Your task to perform on an android device: Search for pizza restaurants on Maps Image 0: 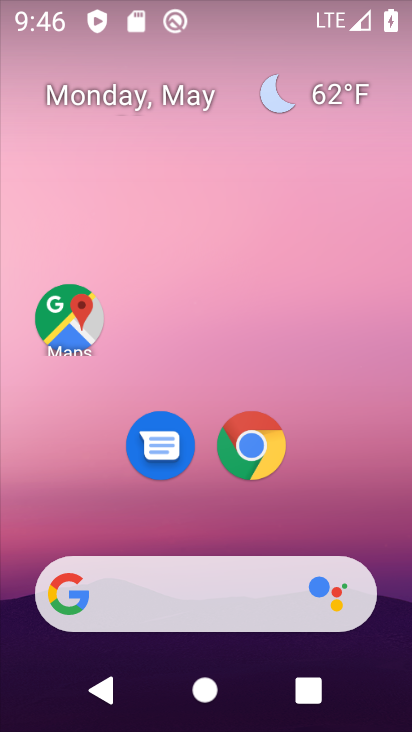
Step 0: drag from (397, 622) to (213, 108)
Your task to perform on an android device: Search for pizza restaurants on Maps Image 1: 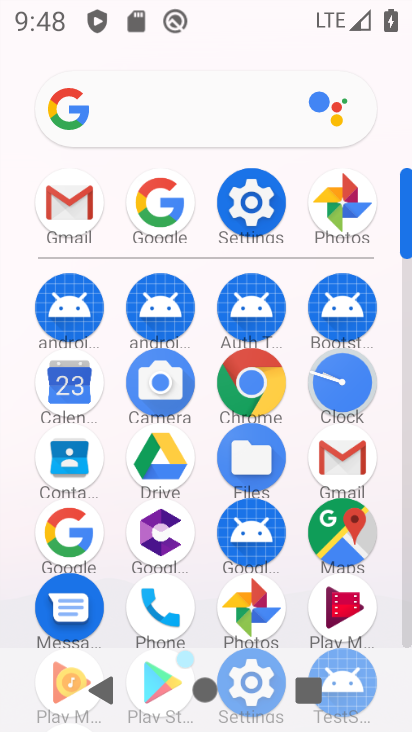
Step 1: click (363, 547)
Your task to perform on an android device: Search for pizza restaurants on Maps Image 2: 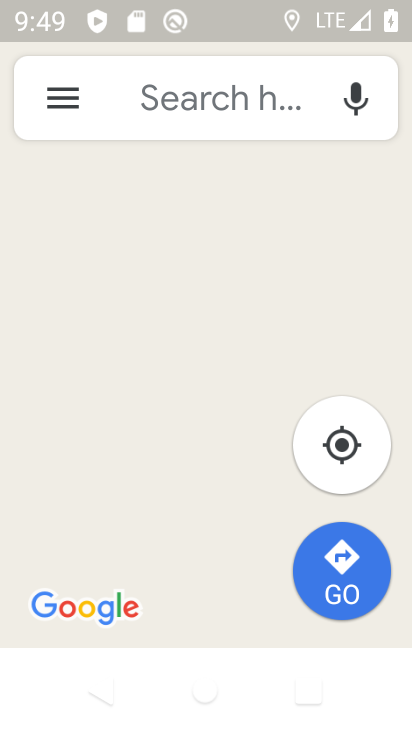
Step 2: click (197, 103)
Your task to perform on an android device: Search for pizza restaurants on Maps Image 3: 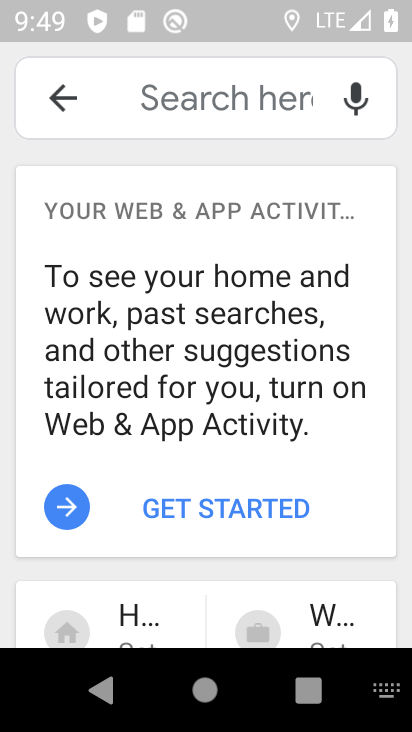
Step 3: click (267, 509)
Your task to perform on an android device: Search for pizza restaurants on Maps Image 4: 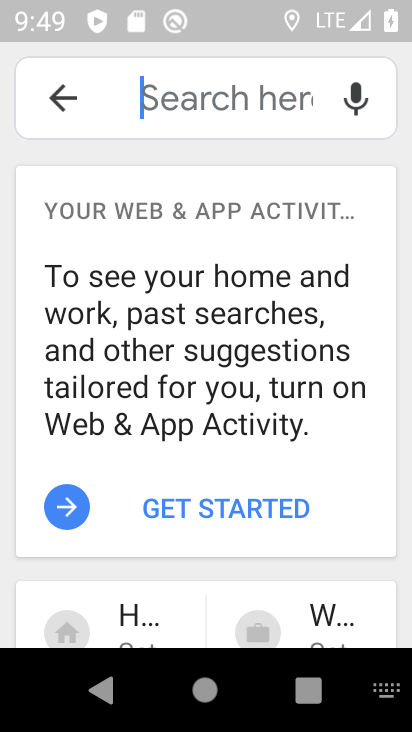
Step 4: click (242, 506)
Your task to perform on an android device: Search for pizza restaurants on Maps Image 5: 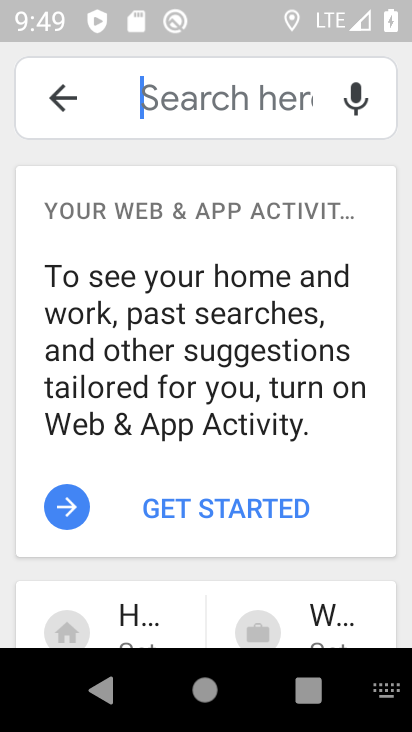
Step 5: click (148, 513)
Your task to perform on an android device: Search for pizza restaurants on Maps Image 6: 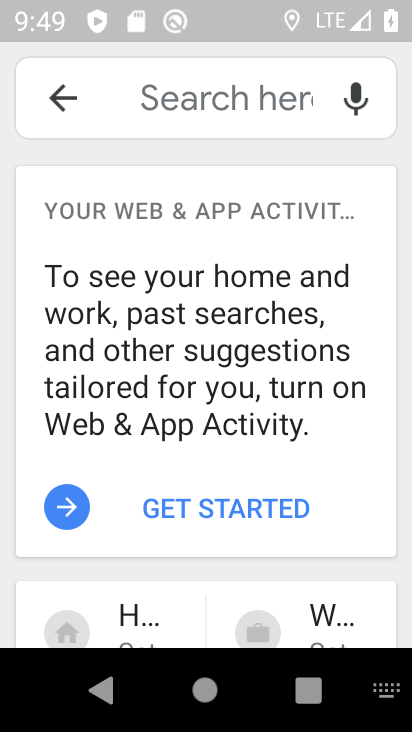
Step 6: click (148, 513)
Your task to perform on an android device: Search for pizza restaurants on Maps Image 7: 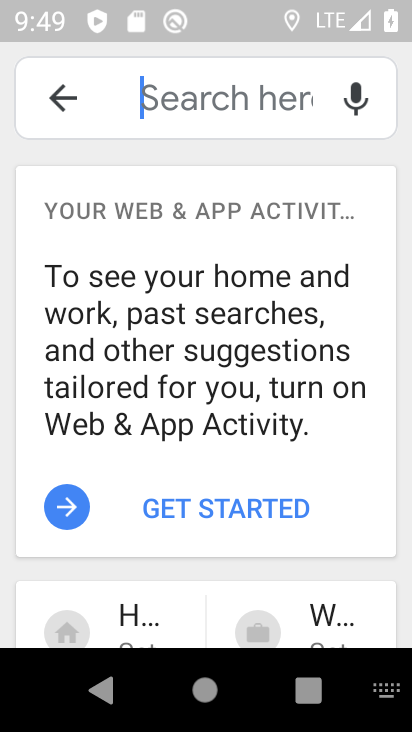
Step 7: click (100, 511)
Your task to perform on an android device: Search for pizza restaurants on Maps Image 8: 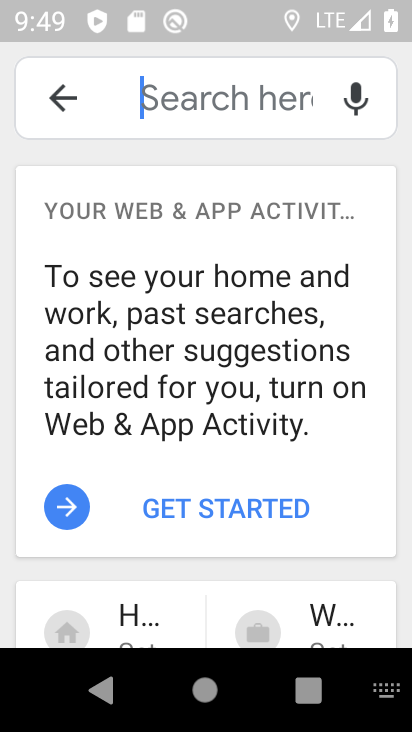
Step 8: click (100, 511)
Your task to perform on an android device: Search for pizza restaurants on Maps Image 9: 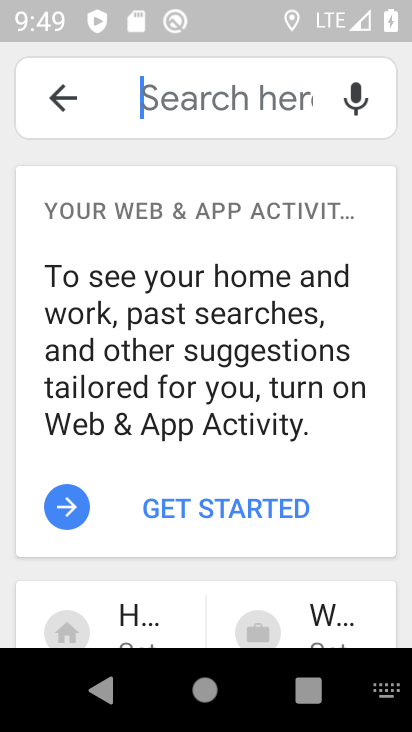
Step 9: task complete